Your task to perform on an android device: delete the emails in spam in the gmail app Image 0: 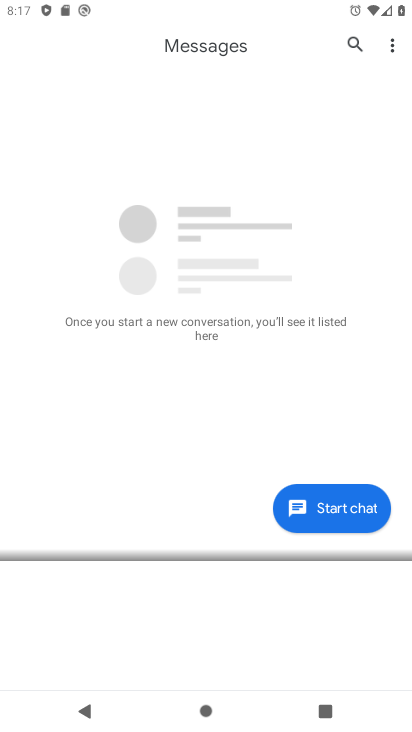
Step 0: drag from (286, 672) to (130, 70)
Your task to perform on an android device: delete the emails in spam in the gmail app Image 1: 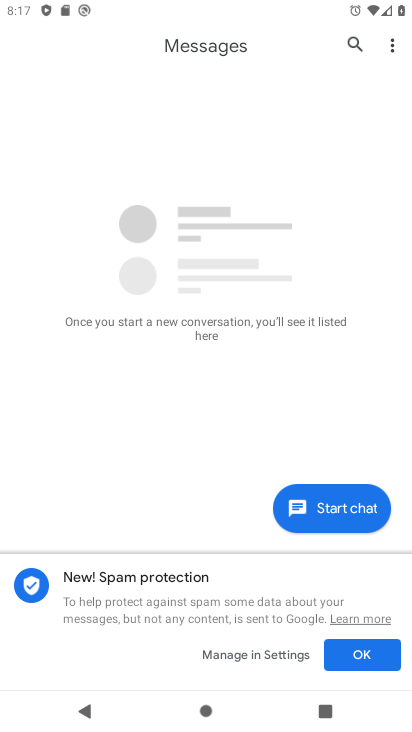
Step 1: press back button
Your task to perform on an android device: delete the emails in spam in the gmail app Image 2: 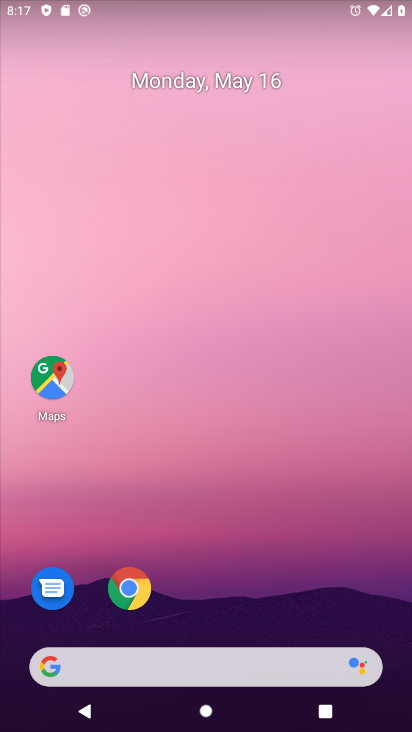
Step 2: drag from (274, 602) to (187, 0)
Your task to perform on an android device: delete the emails in spam in the gmail app Image 3: 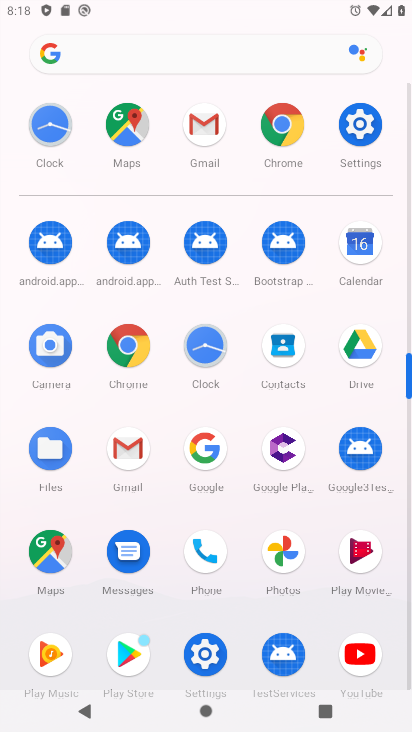
Step 3: click (132, 452)
Your task to perform on an android device: delete the emails in spam in the gmail app Image 4: 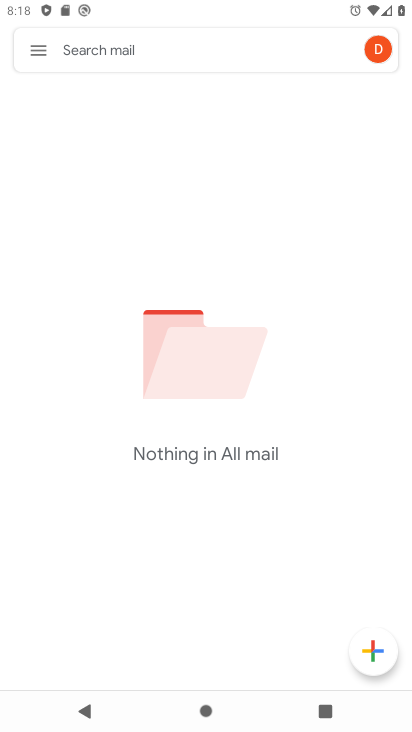
Step 4: click (41, 49)
Your task to perform on an android device: delete the emails in spam in the gmail app Image 5: 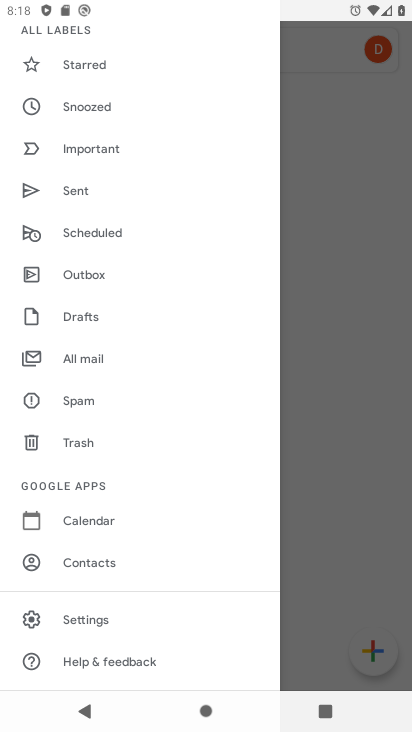
Step 5: click (95, 355)
Your task to perform on an android device: delete the emails in spam in the gmail app Image 6: 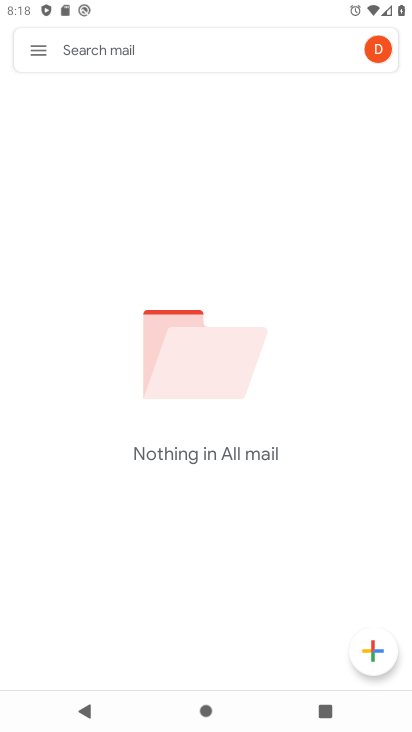
Step 6: click (40, 41)
Your task to perform on an android device: delete the emails in spam in the gmail app Image 7: 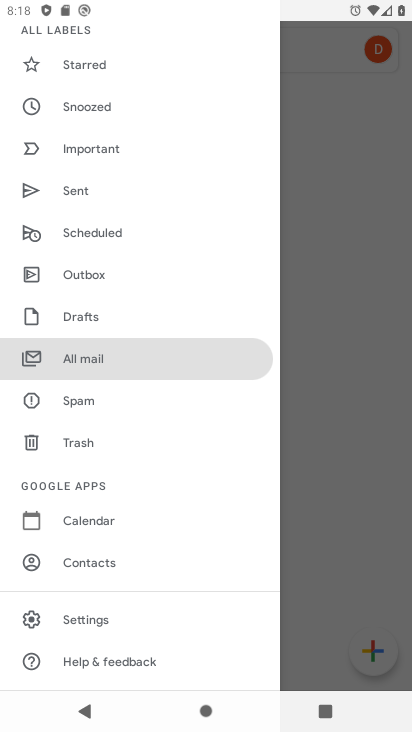
Step 7: click (77, 395)
Your task to perform on an android device: delete the emails in spam in the gmail app Image 8: 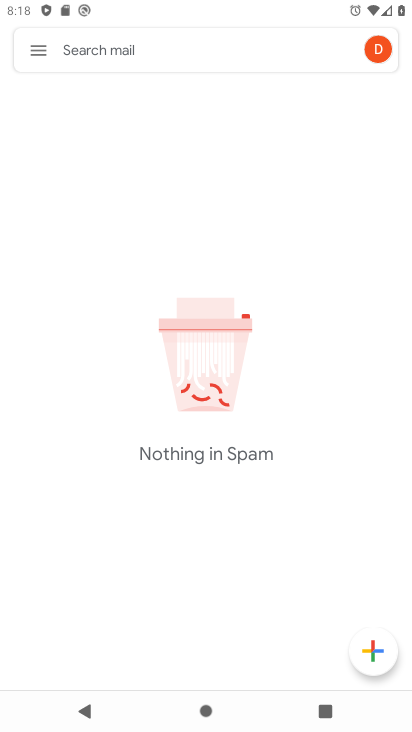
Step 8: task complete